Your task to perform on an android device: open the mobile data screen to see how much data has been used Image 0: 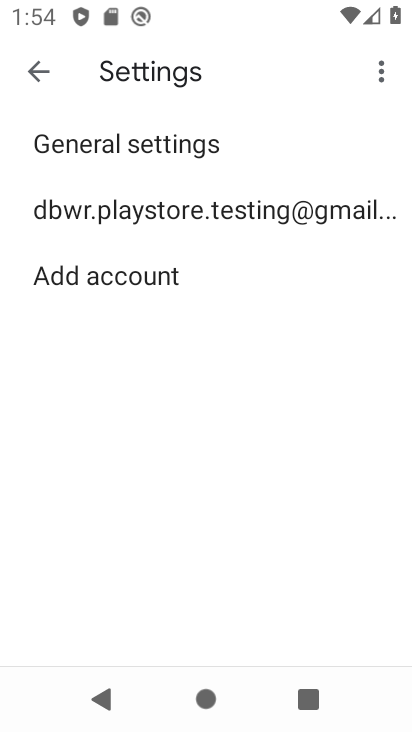
Step 0: press home button
Your task to perform on an android device: open the mobile data screen to see how much data has been used Image 1: 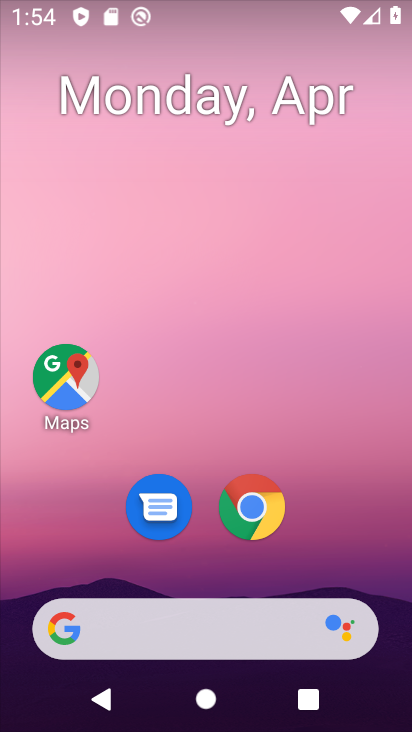
Step 1: drag from (396, 614) to (384, 72)
Your task to perform on an android device: open the mobile data screen to see how much data has been used Image 2: 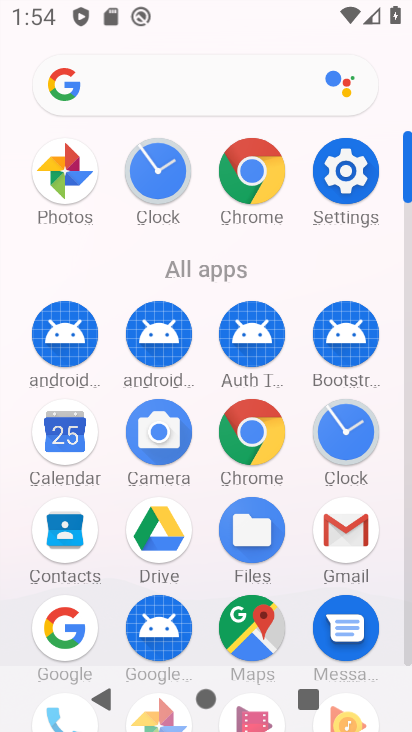
Step 2: click (407, 647)
Your task to perform on an android device: open the mobile data screen to see how much data has been used Image 3: 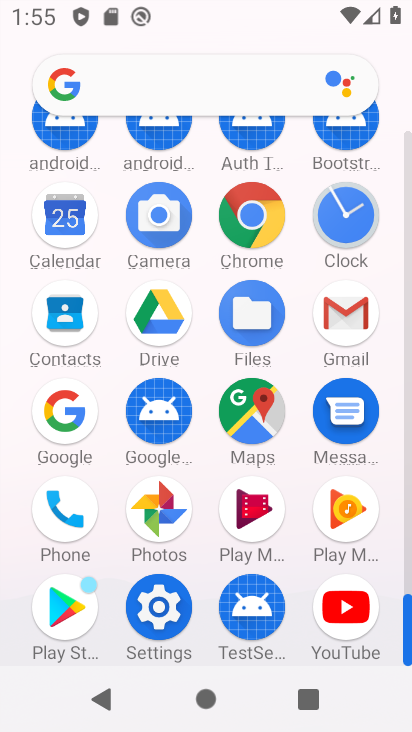
Step 3: click (156, 608)
Your task to perform on an android device: open the mobile data screen to see how much data has been used Image 4: 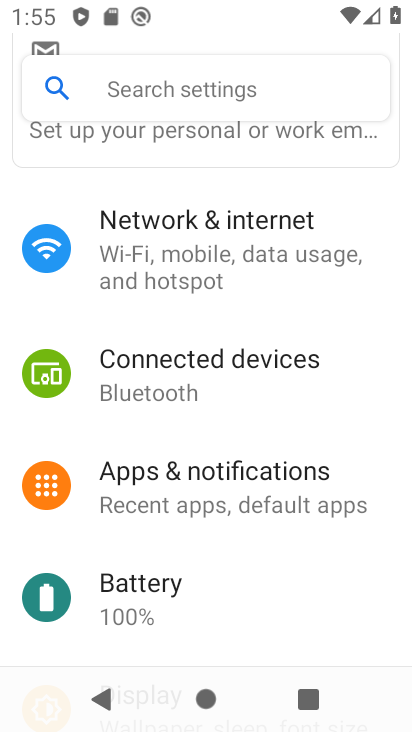
Step 4: click (153, 251)
Your task to perform on an android device: open the mobile data screen to see how much data has been used Image 5: 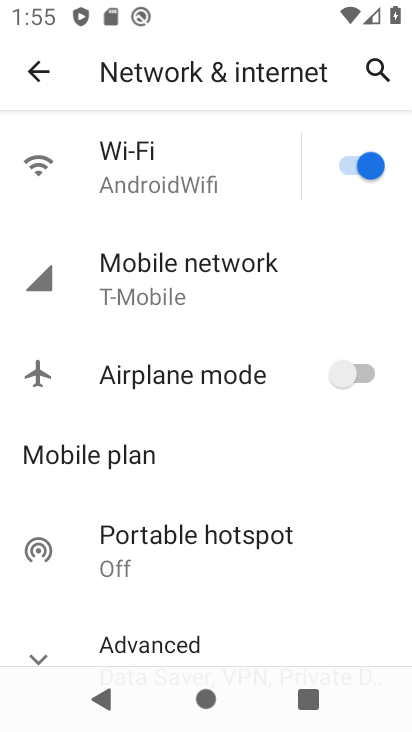
Step 5: click (153, 251)
Your task to perform on an android device: open the mobile data screen to see how much data has been used Image 6: 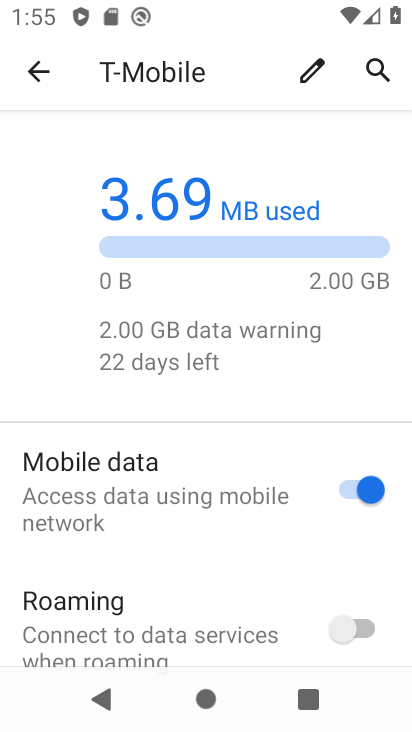
Step 6: task complete